Your task to perform on an android device: What is the recent news? Image 0: 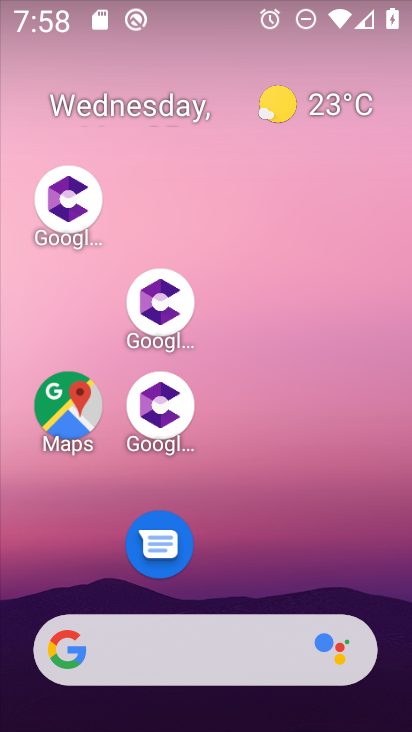
Step 0: drag from (35, 144) to (402, 445)
Your task to perform on an android device: What is the recent news? Image 1: 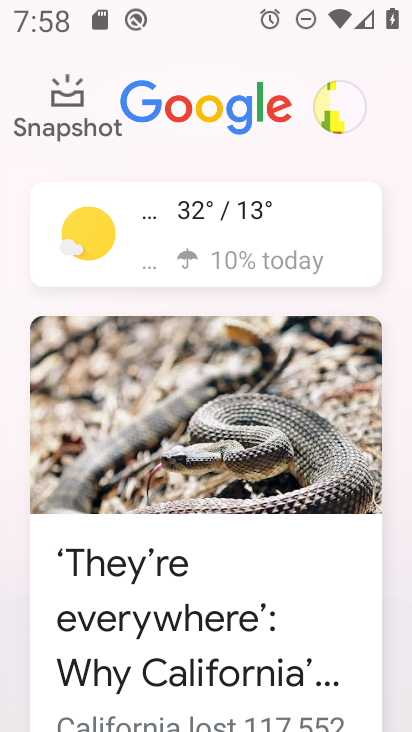
Step 1: task complete